Your task to perform on an android device: search for starred emails in the gmail app Image 0: 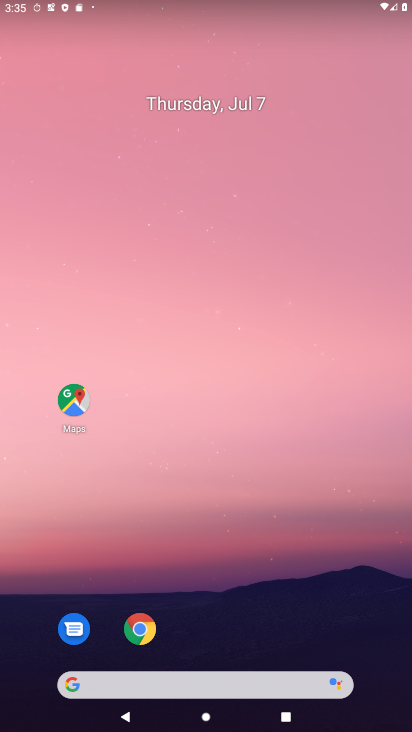
Step 0: drag from (200, 514) to (200, 207)
Your task to perform on an android device: search for starred emails in the gmail app Image 1: 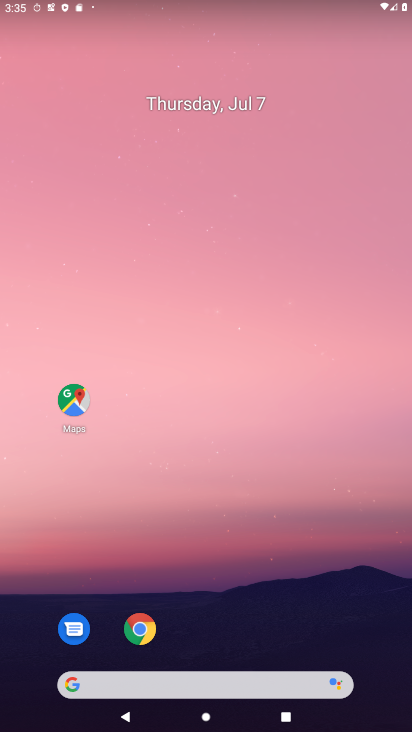
Step 1: drag from (195, 620) to (189, 226)
Your task to perform on an android device: search for starred emails in the gmail app Image 2: 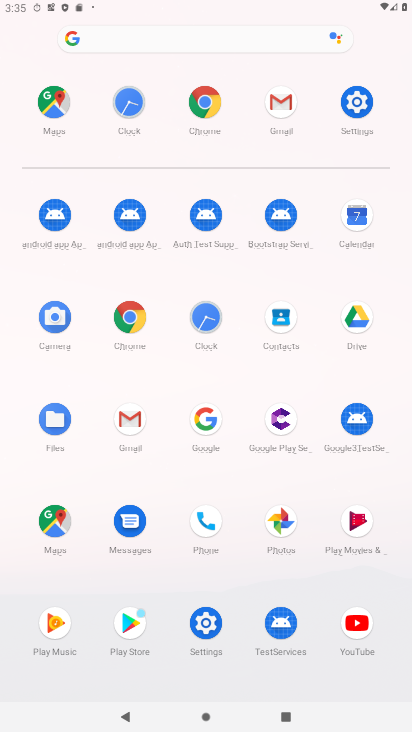
Step 2: click (274, 109)
Your task to perform on an android device: search for starred emails in the gmail app Image 3: 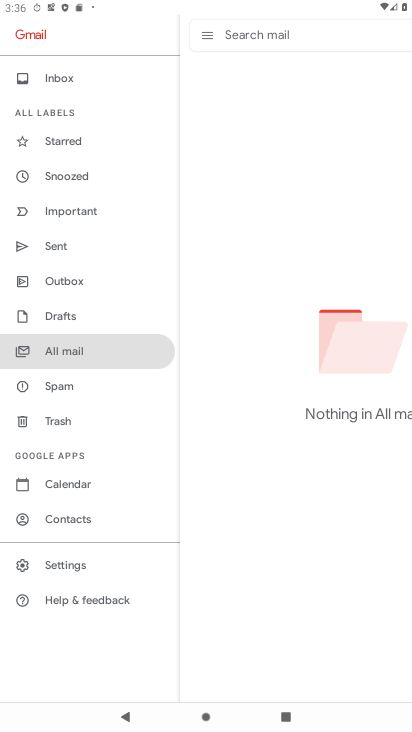
Step 3: click (70, 140)
Your task to perform on an android device: search for starred emails in the gmail app Image 4: 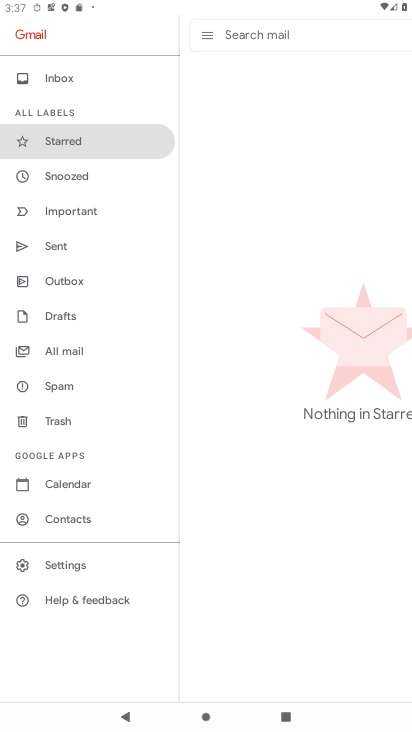
Step 4: task complete